Your task to perform on an android device: turn off wifi Image 0: 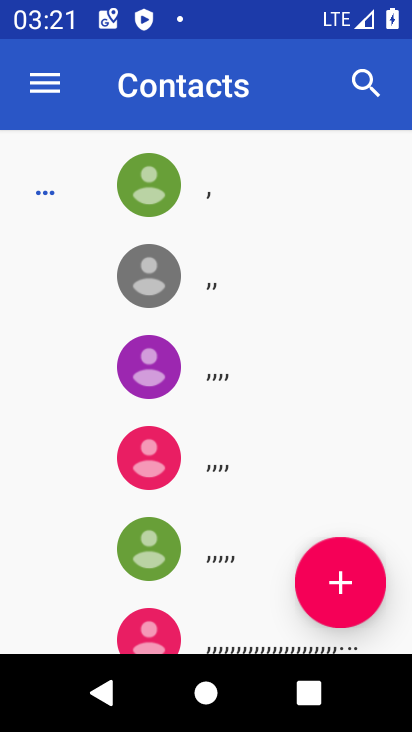
Step 0: click (152, 260)
Your task to perform on an android device: turn off wifi Image 1: 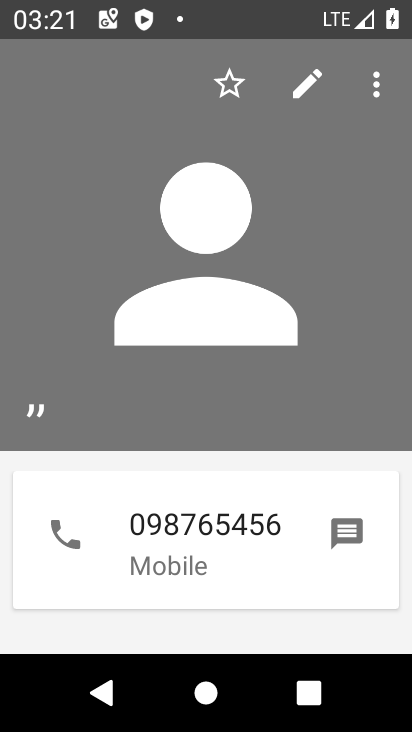
Step 1: press back button
Your task to perform on an android device: turn off wifi Image 2: 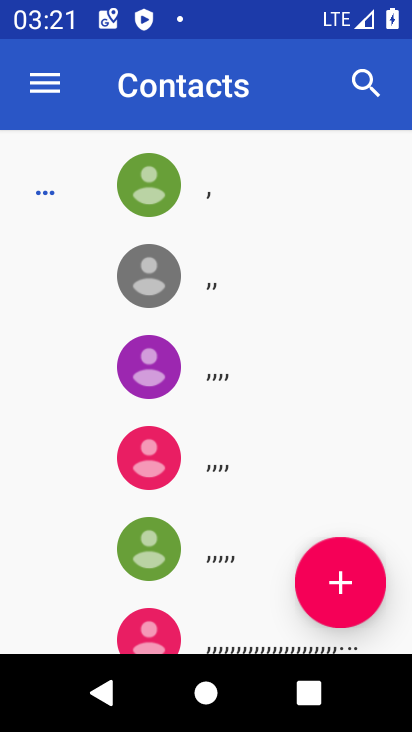
Step 2: press home button
Your task to perform on an android device: turn off wifi Image 3: 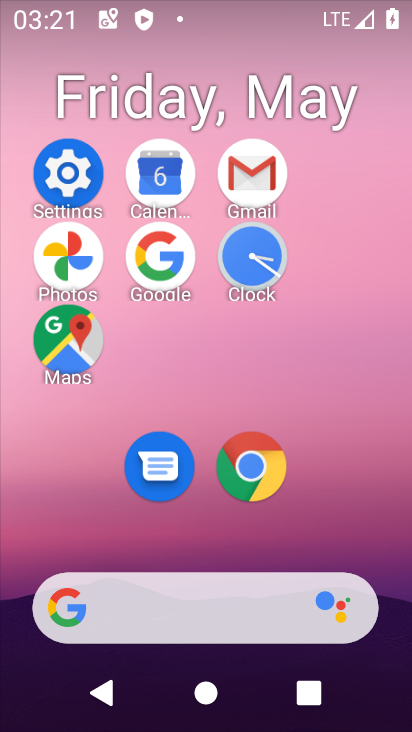
Step 3: click (176, 249)
Your task to perform on an android device: turn off wifi Image 4: 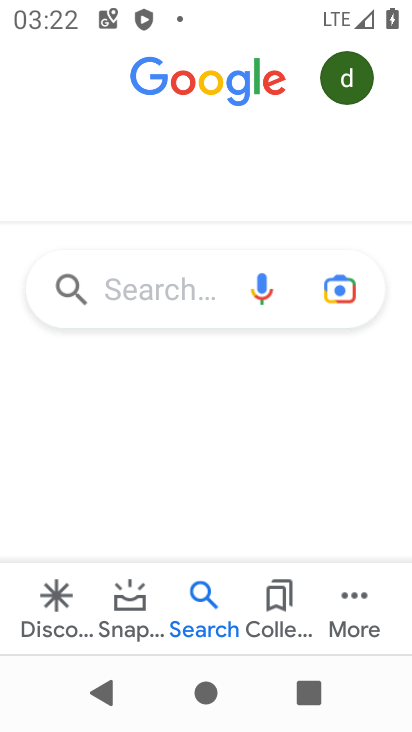
Step 4: press back button
Your task to perform on an android device: turn off wifi Image 5: 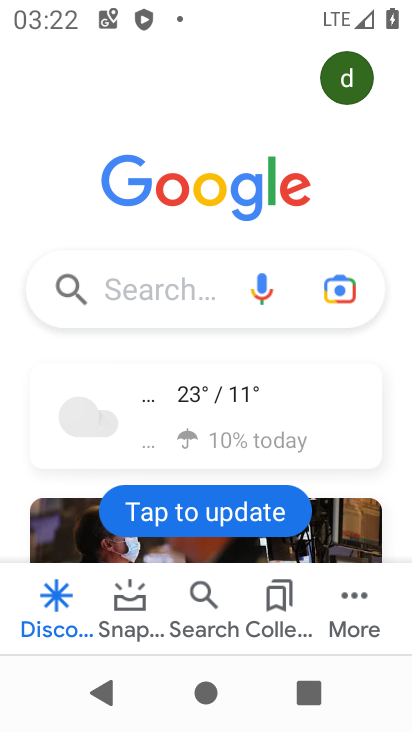
Step 5: press back button
Your task to perform on an android device: turn off wifi Image 6: 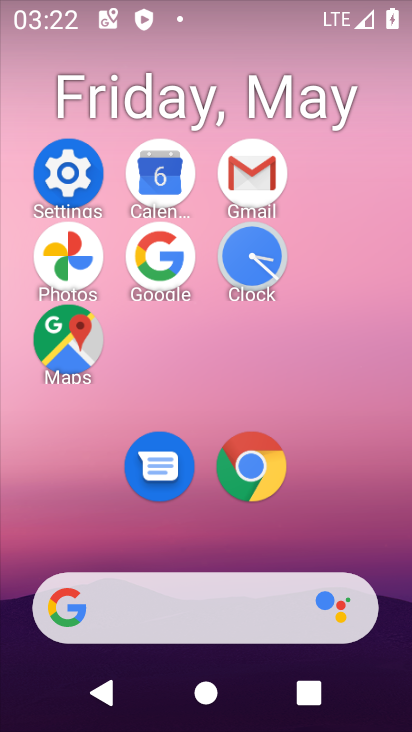
Step 6: click (79, 179)
Your task to perform on an android device: turn off wifi Image 7: 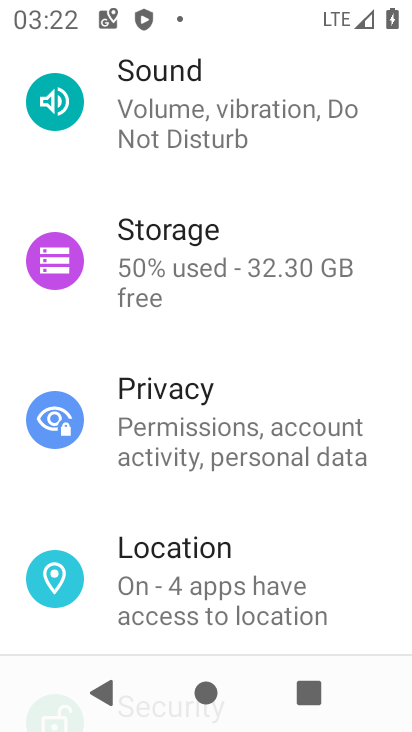
Step 7: drag from (266, 122) to (236, 578)
Your task to perform on an android device: turn off wifi Image 8: 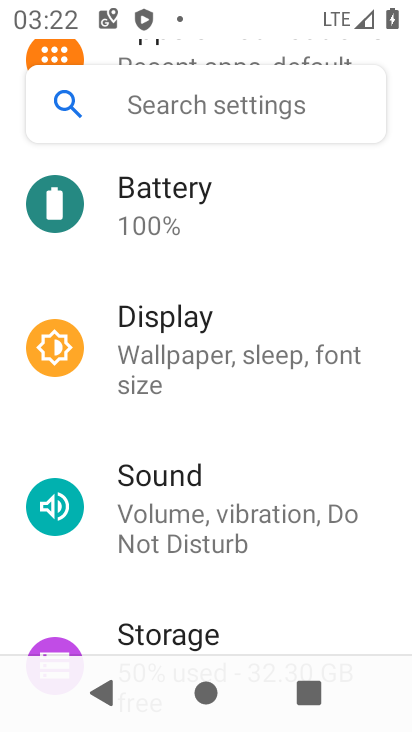
Step 8: drag from (287, 248) to (275, 579)
Your task to perform on an android device: turn off wifi Image 9: 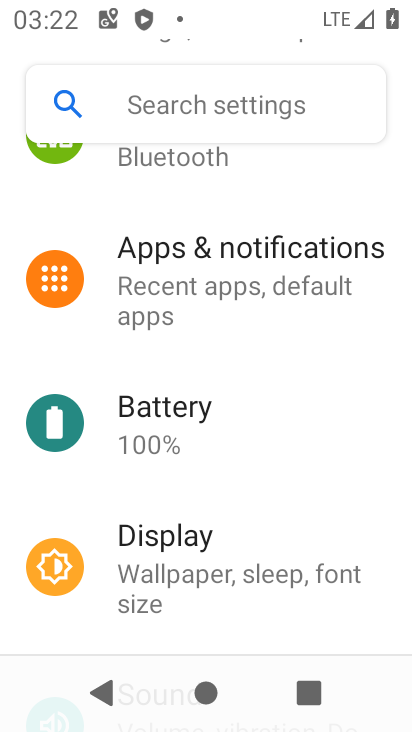
Step 9: drag from (320, 337) to (304, 647)
Your task to perform on an android device: turn off wifi Image 10: 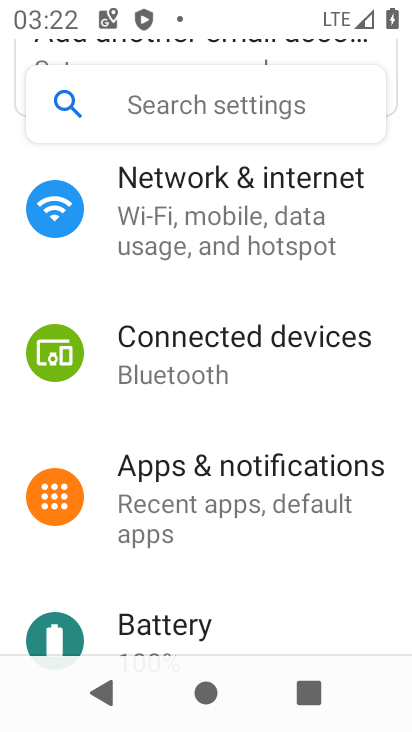
Step 10: click (268, 254)
Your task to perform on an android device: turn off wifi Image 11: 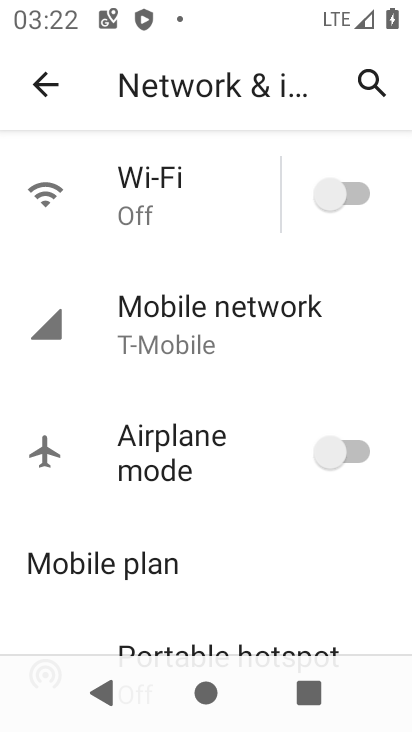
Step 11: task complete